Your task to perform on an android device: Go to Maps Image 0: 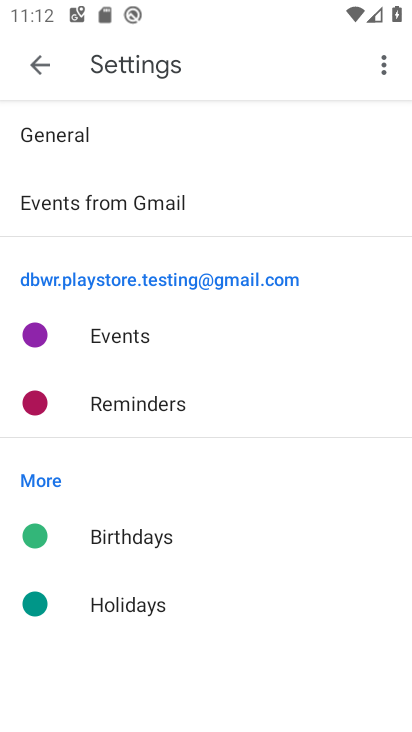
Step 0: press home button
Your task to perform on an android device: Go to Maps Image 1: 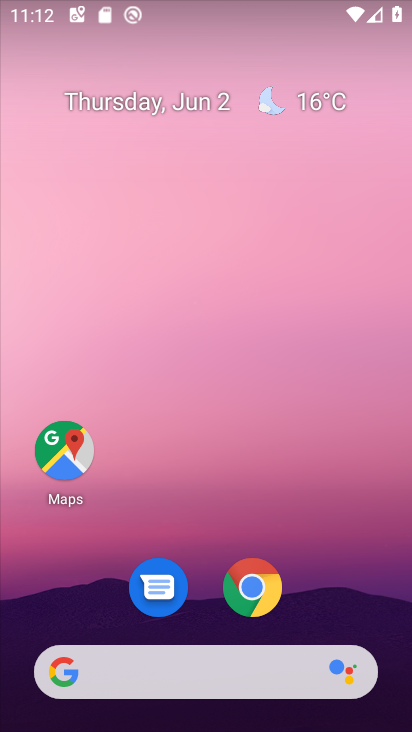
Step 1: click (64, 462)
Your task to perform on an android device: Go to Maps Image 2: 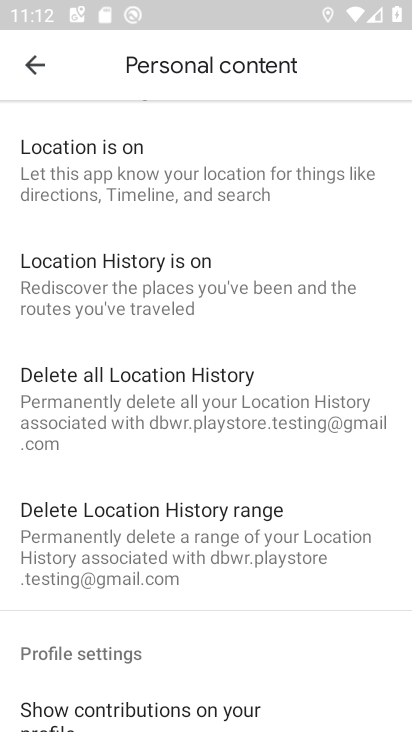
Step 2: click (34, 63)
Your task to perform on an android device: Go to Maps Image 3: 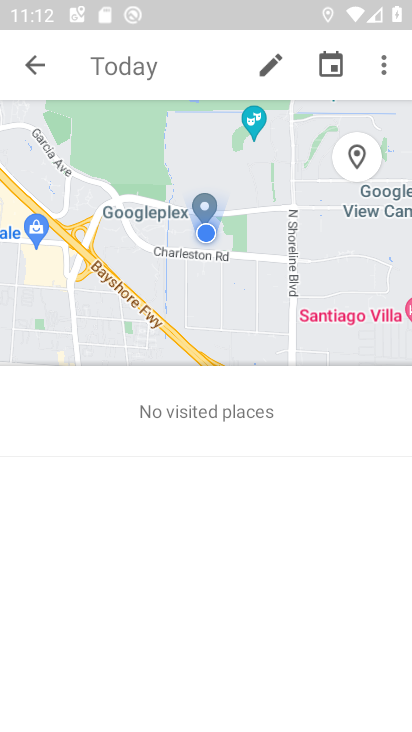
Step 3: click (34, 63)
Your task to perform on an android device: Go to Maps Image 4: 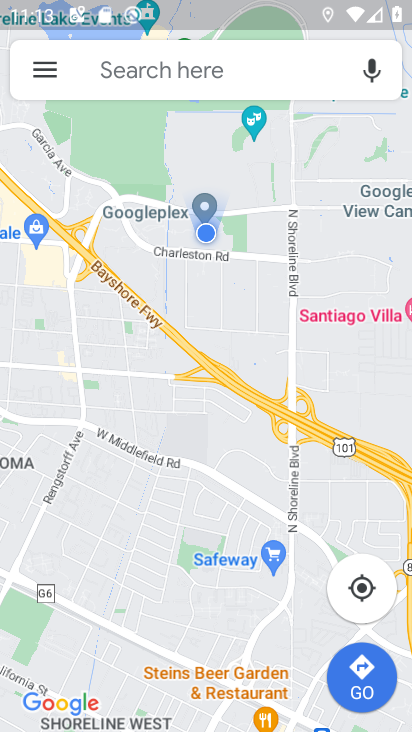
Step 4: task complete